Your task to perform on an android device: Open Wikipedia Image 0: 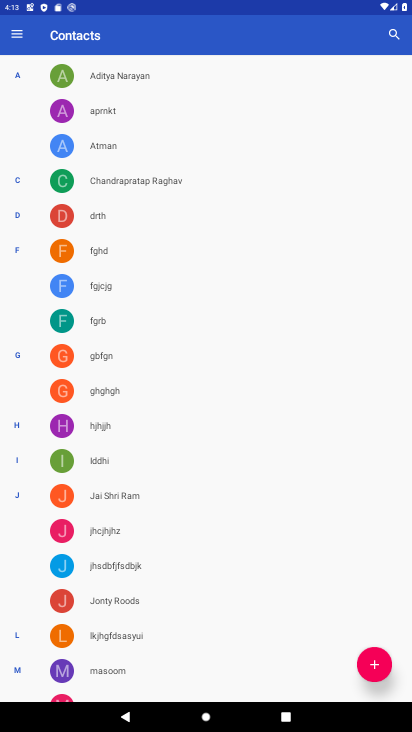
Step 0: press home button
Your task to perform on an android device: Open Wikipedia Image 1: 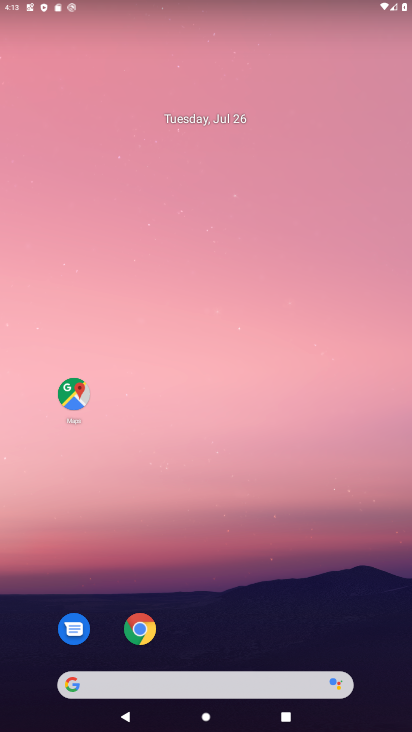
Step 1: click (147, 638)
Your task to perform on an android device: Open Wikipedia Image 2: 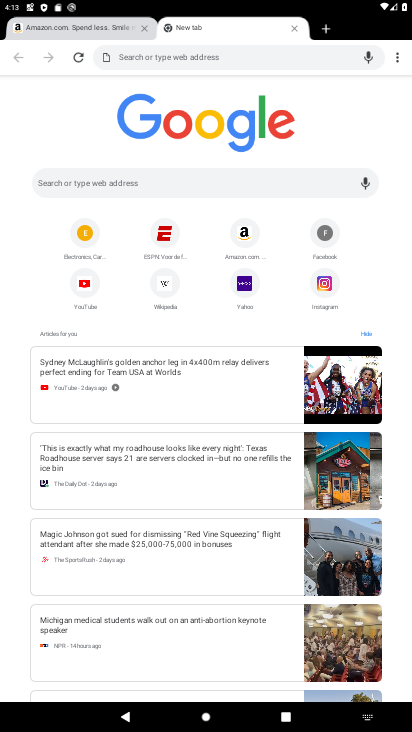
Step 2: click (161, 288)
Your task to perform on an android device: Open Wikipedia Image 3: 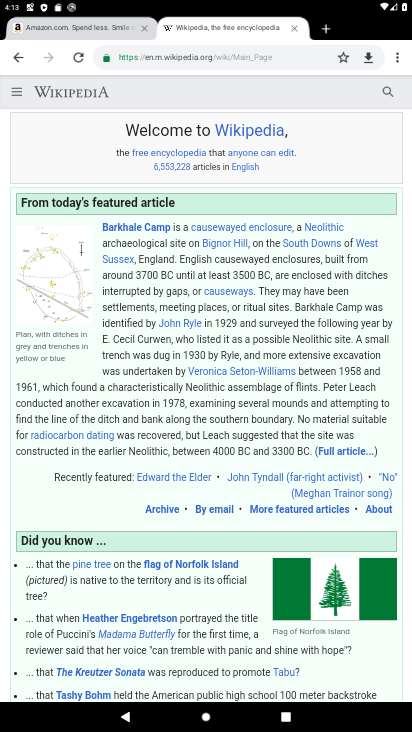
Step 3: task complete